Your task to perform on an android device: toggle data saver in the chrome app Image 0: 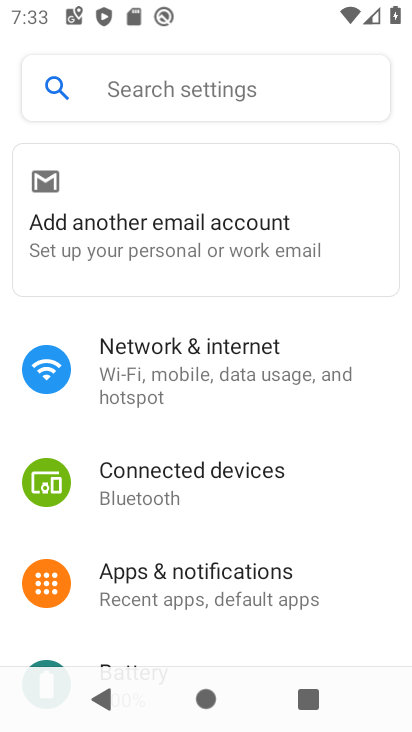
Step 0: press home button
Your task to perform on an android device: toggle data saver in the chrome app Image 1: 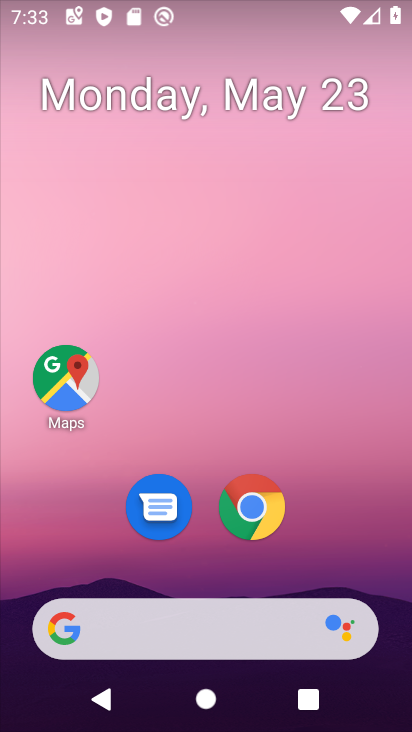
Step 1: drag from (329, 533) to (364, 141)
Your task to perform on an android device: toggle data saver in the chrome app Image 2: 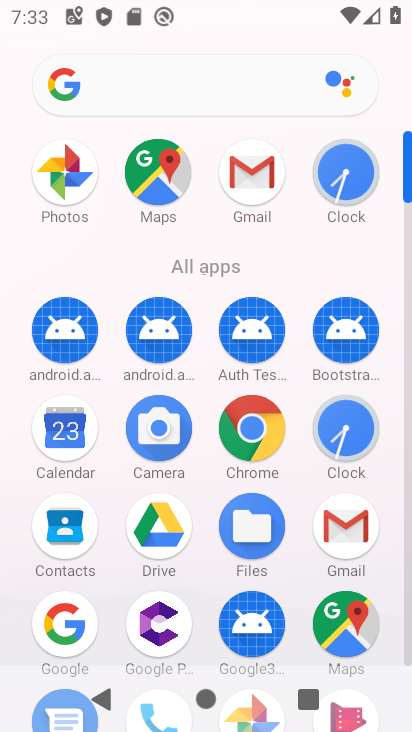
Step 2: click (256, 445)
Your task to perform on an android device: toggle data saver in the chrome app Image 3: 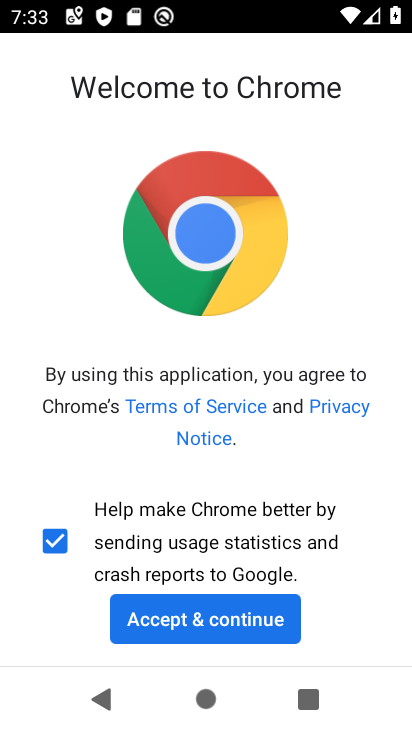
Step 3: click (216, 606)
Your task to perform on an android device: toggle data saver in the chrome app Image 4: 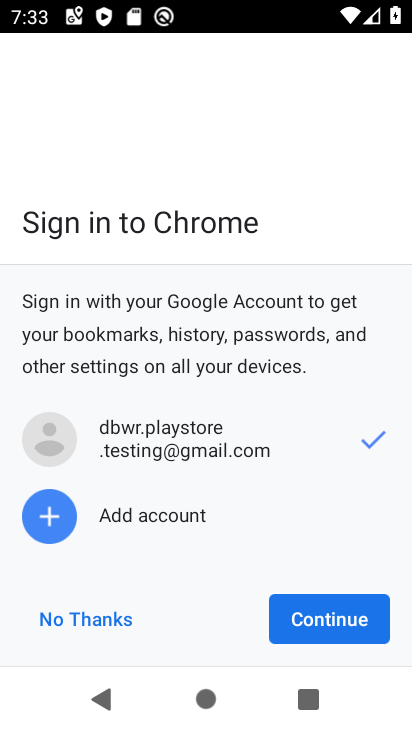
Step 4: click (333, 622)
Your task to perform on an android device: toggle data saver in the chrome app Image 5: 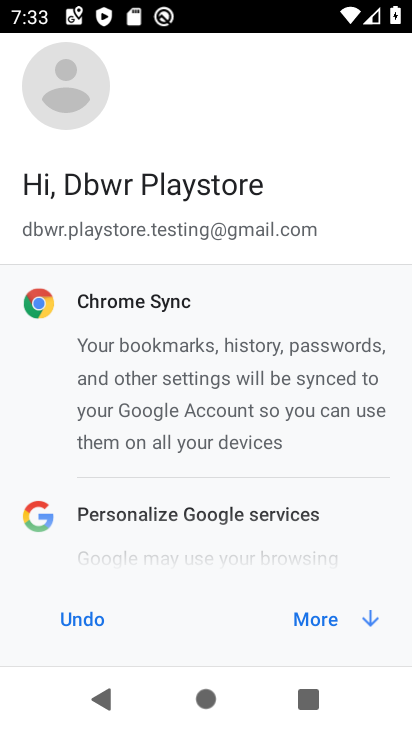
Step 5: click (333, 622)
Your task to perform on an android device: toggle data saver in the chrome app Image 6: 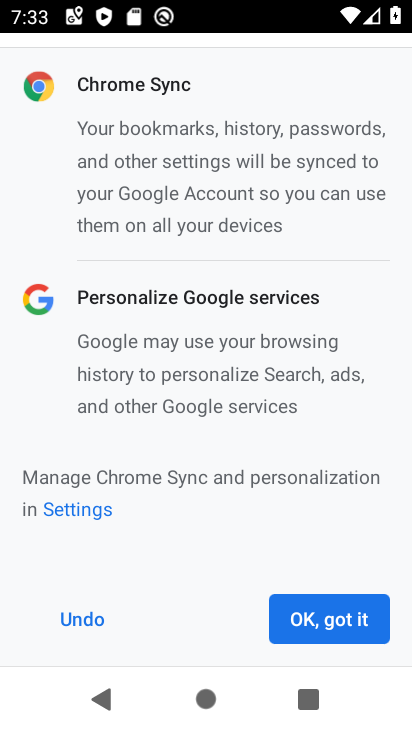
Step 6: click (333, 622)
Your task to perform on an android device: toggle data saver in the chrome app Image 7: 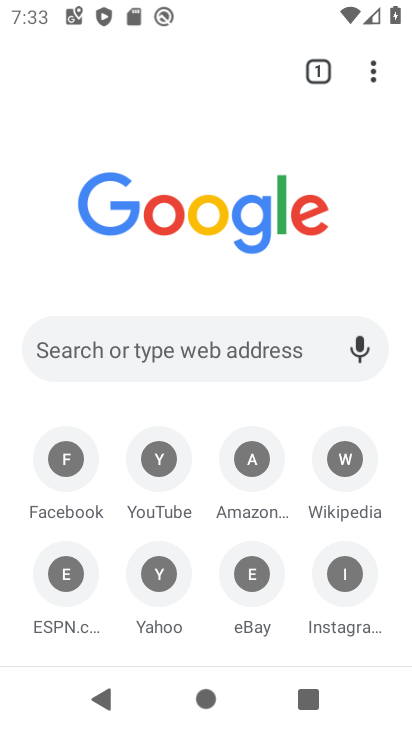
Step 7: drag from (373, 83) to (173, 509)
Your task to perform on an android device: toggle data saver in the chrome app Image 8: 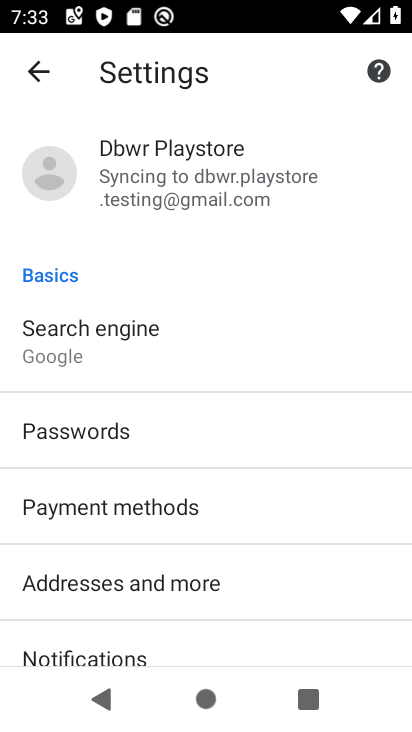
Step 8: drag from (238, 627) to (288, 264)
Your task to perform on an android device: toggle data saver in the chrome app Image 9: 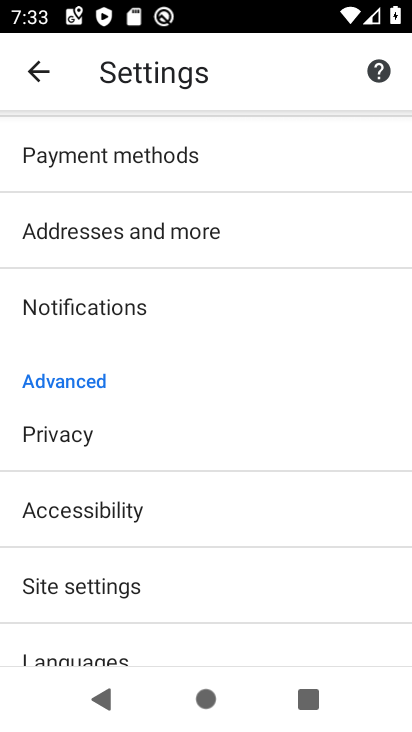
Step 9: drag from (248, 628) to (285, 305)
Your task to perform on an android device: toggle data saver in the chrome app Image 10: 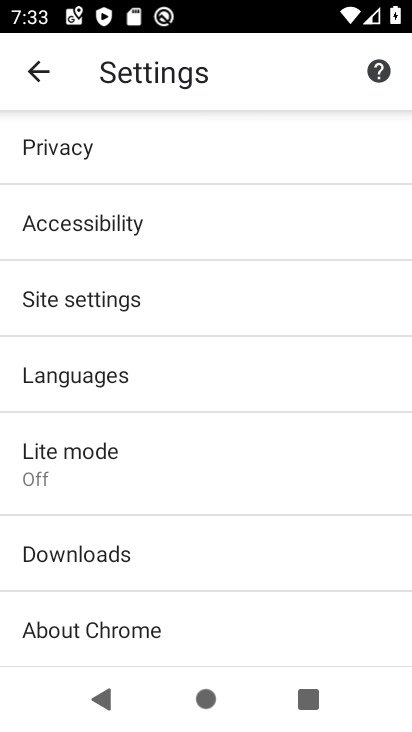
Step 10: click (147, 464)
Your task to perform on an android device: toggle data saver in the chrome app Image 11: 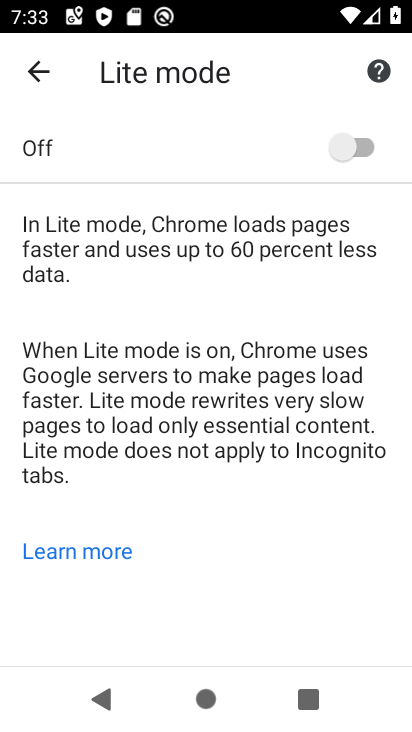
Step 11: click (361, 145)
Your task to perform on an android device: toggle data saver in the chrome app Image 12: 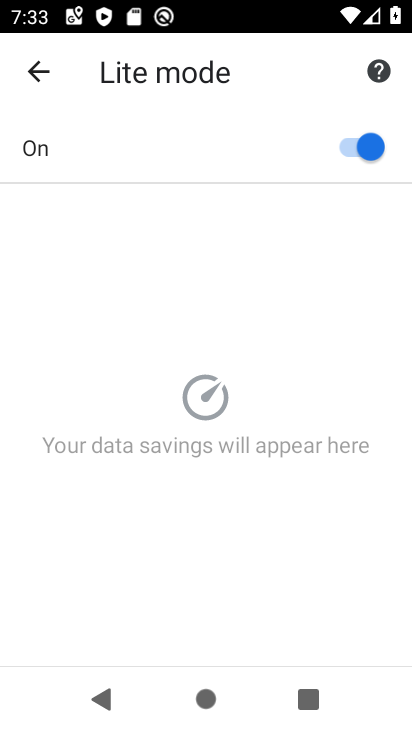
Step 12: task complete